Your task to perform on an android device: Go to network settings Image 0: 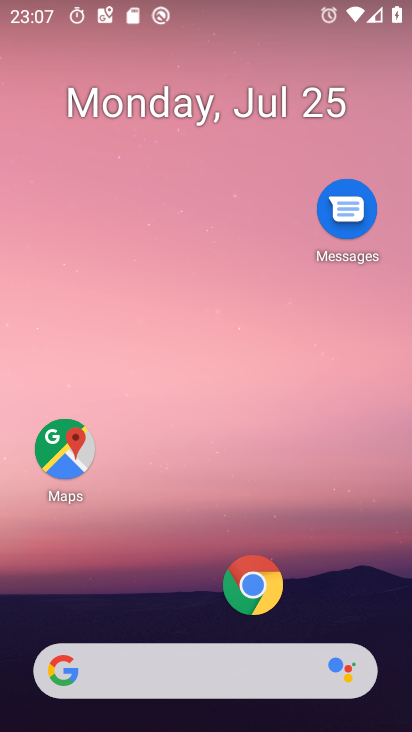
Step 0: press home button
Your task to perform on an android device: Go to network settings Image 1: 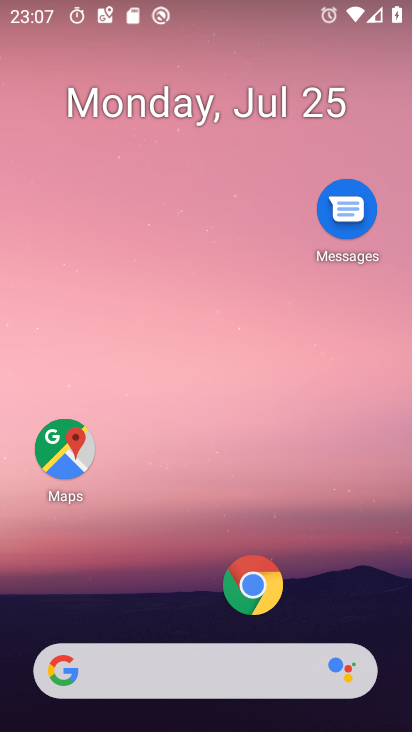
Step 1: drag from (186, 675) to (273, 93)
Your task to perform on an android device: Go to network settings Image 2: 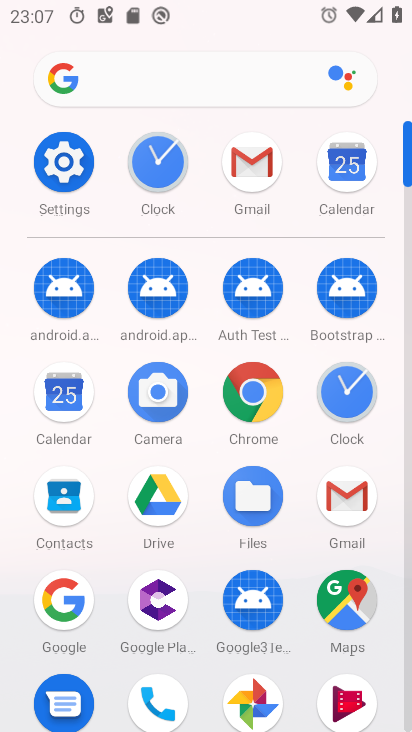
Step 2: click (55, 171)
Your task to perform on an android device: Go to network settings Image 3: 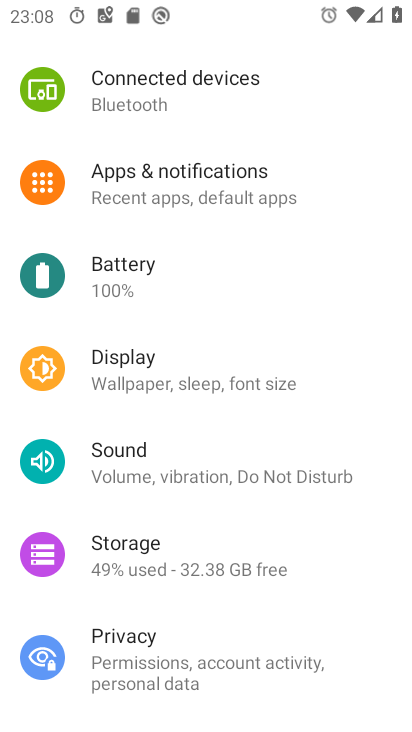
Step 3: drag from (302, 122) to (270, 684)
Your task to perform on an android device: Go to network settings Image 4: 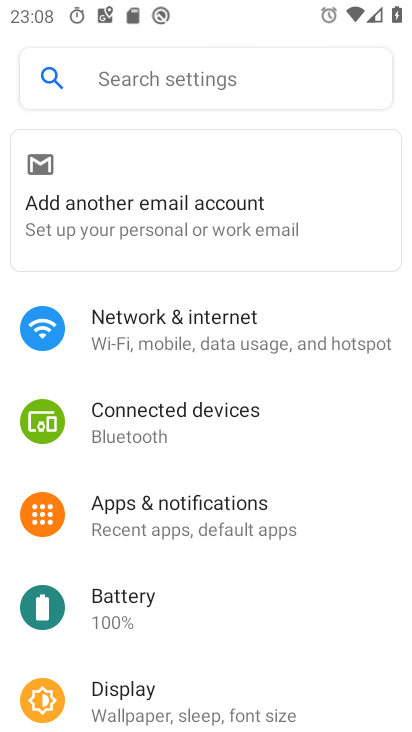
Step 4: click (189, 334)
Your task to perform on an android device: Go to network settings Image 5: 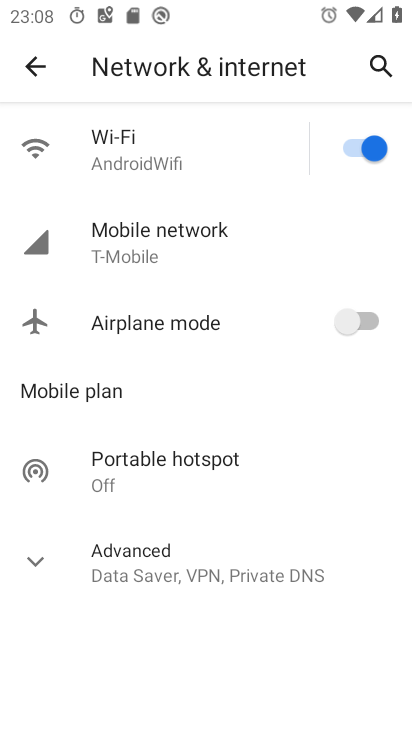
Step 5: task complete